Your task to perform on an android device: allow notifications from all sites in the chrome app Image 0: 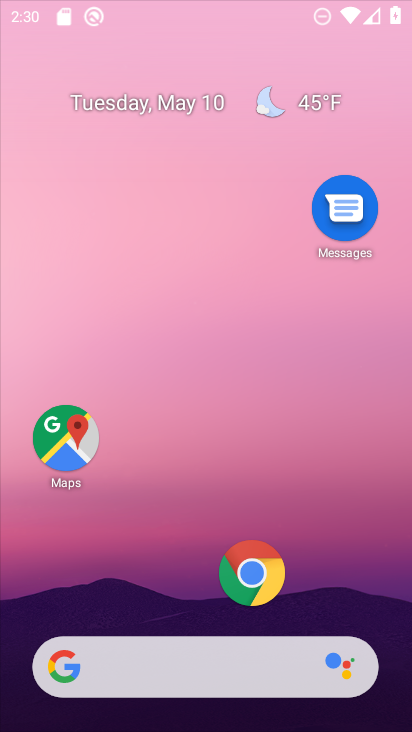
Step 0: click (358, 252)
Your task to perform on an android device: allow notifications from all sites in the chrome app Image 1: 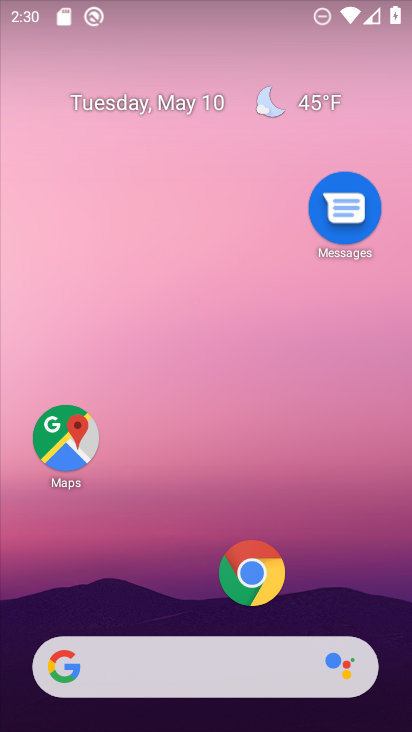
Step 1: drag from (228, 566) to (241, 20)
Your task to perform on an android device: allow notifications from all sites in the chrome app Image 2: 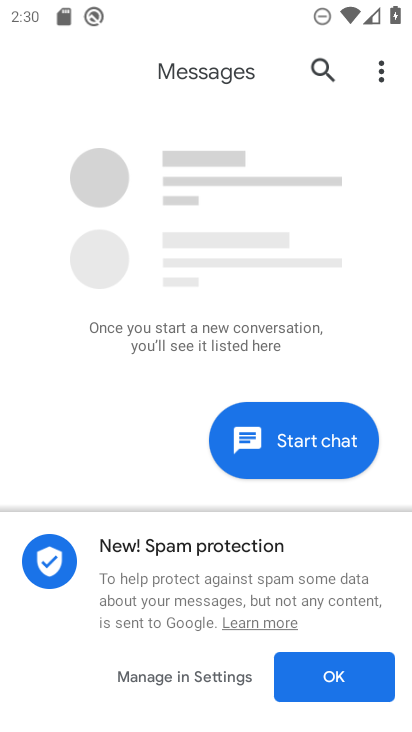
Step 2: press home button
Your task to perform on an android device: allow notifications from all sites in the chrome app Image 3: 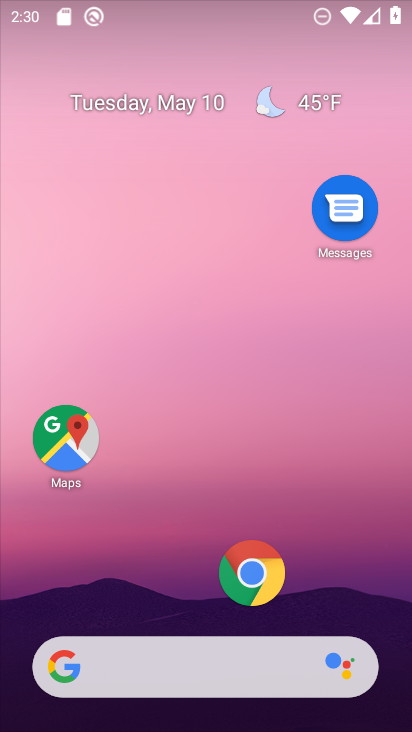
Step 3: drag from (193, 632) to (215, 224)
Your task to perform on an android device: allow notifications from all sites in the chrome app Image 4: 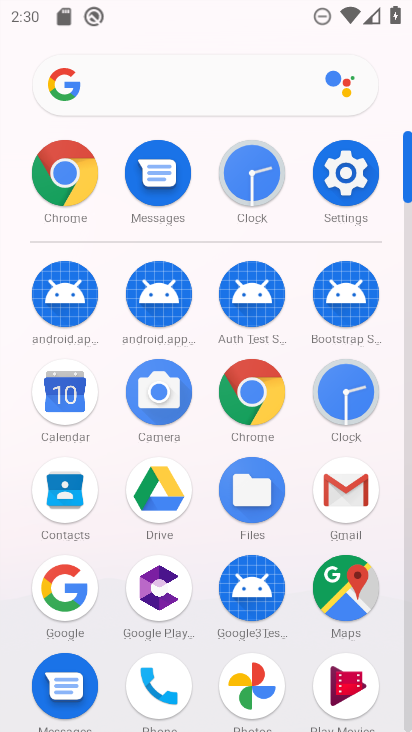
Step 4: click (246, 378)
Your task to perform on an android device: allow notifications from all sites in the chrome app Image 5: 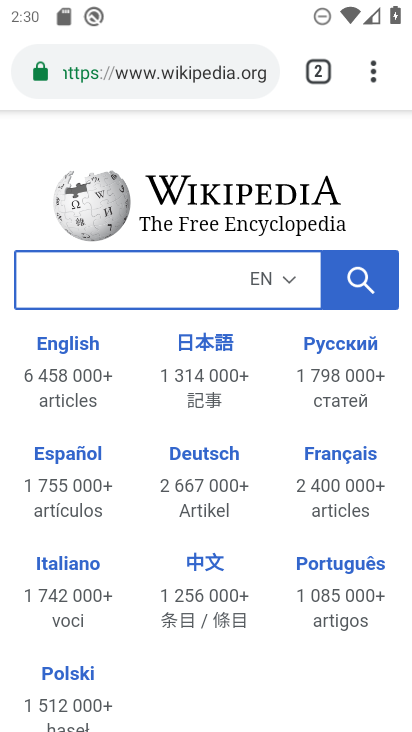
Step 5: drag from (366, 58) to (195, 575)
Your task to perform on an android device: allow notifications from all sites in the chrome app Image 6: 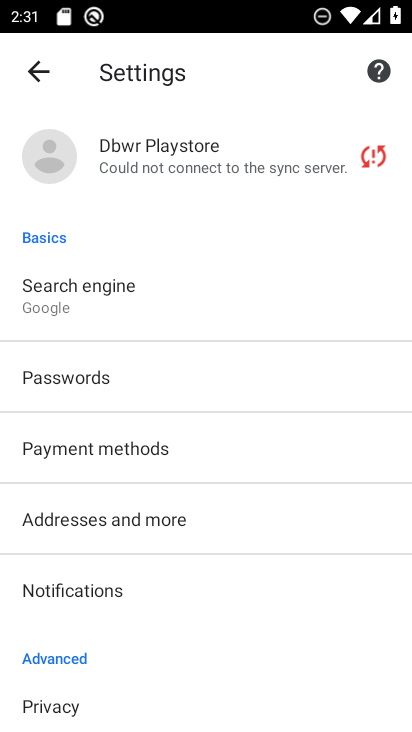
Step 6: drag from (208, 603) to (302, 174)
Your task to perform on an android device: allow notifications from all sites in the chrome app Image 7: 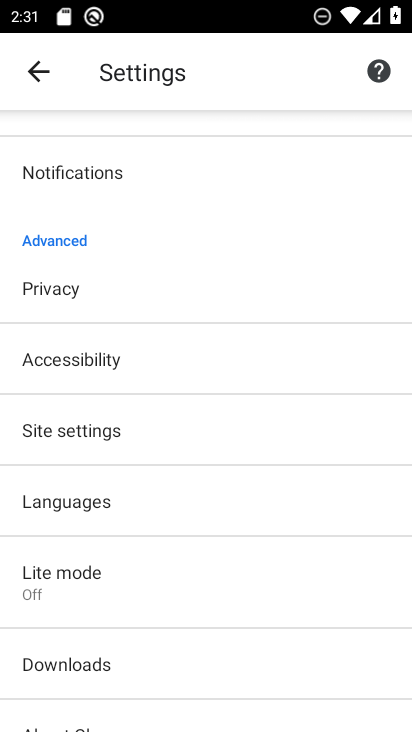
Step 7: click (115, 425)
Your task to perform on an android device: allow notifications from all sites in the chrome app Image 8: 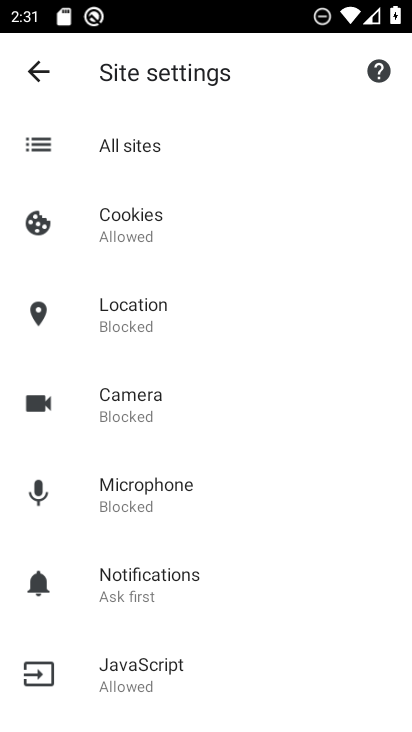
Step 8: drag from (249, 582) to (263, 299)
Your task to perform on an android device: allow notifications from all sites in the chrome app Image 9: 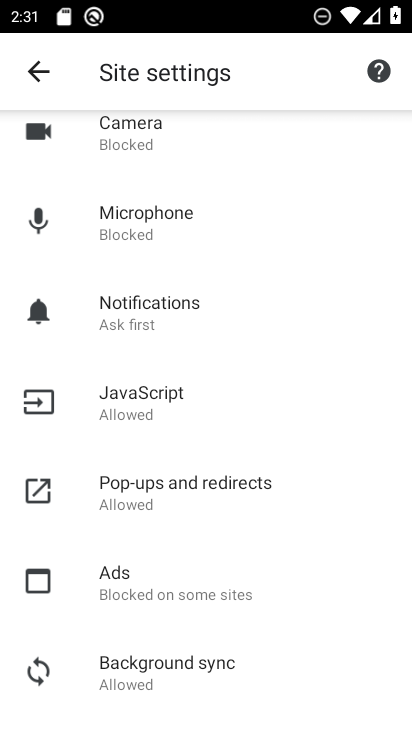
Step 9: drag from (212, 187) to (254, 626)
Your task to perform on an android device: allow notifications from all sites in the chrome app Image 10: 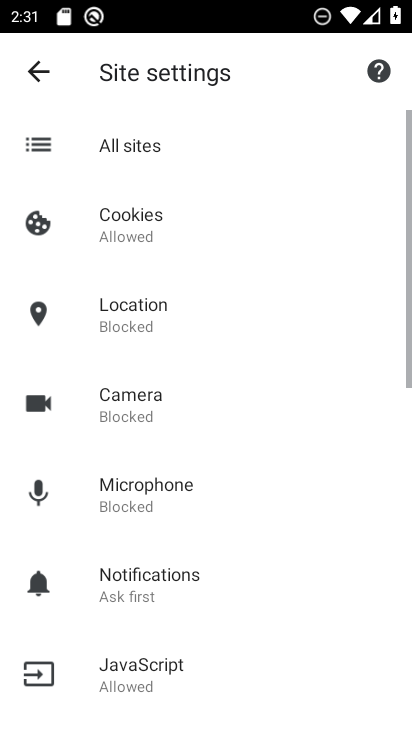
Step 10: click (184, 563)
Your task to perform on an android device: allow notifications from all sites in the chrome app Image 11: 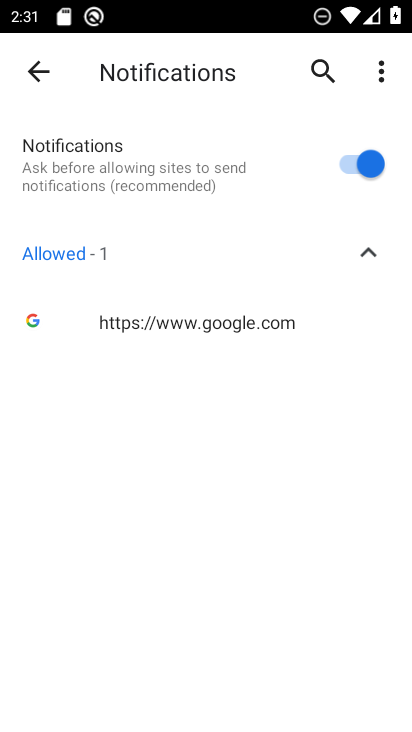
Step 11: task complete